Your task to perform on an android device: change the clock style Image 0: 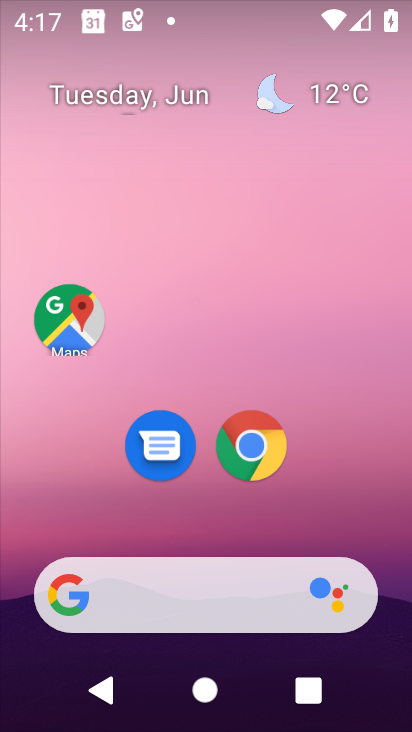
Step 0: drag from (323, 460) to (252, 51)
Your task to perform on an android device: change the clock style Image 1: 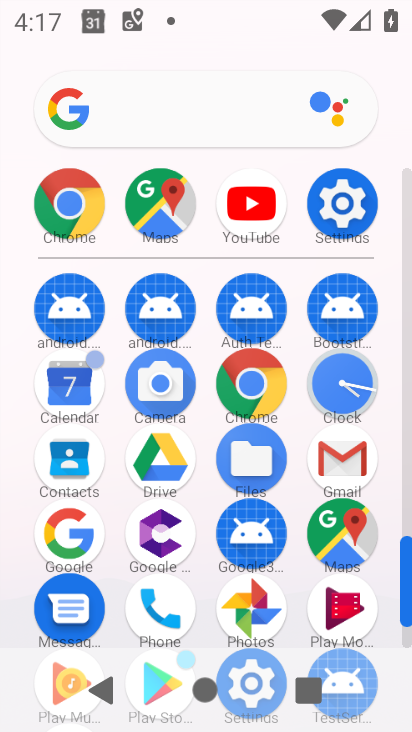
Step 1: click (338, 391)
Your task to perform on an android device: change the clock style Image 2: 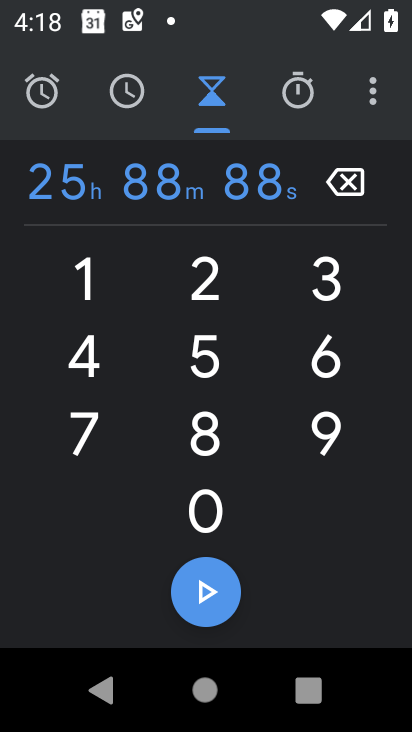
Step 2: click (350, 94)
Your task to perform on an android device: change the clock style Image 3: 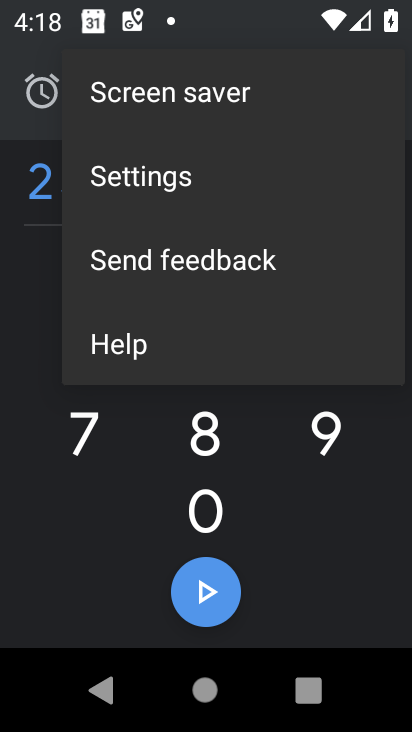
Step 3: click (106, 192)
Your task to perform on an android device: change the clock style Image 4: 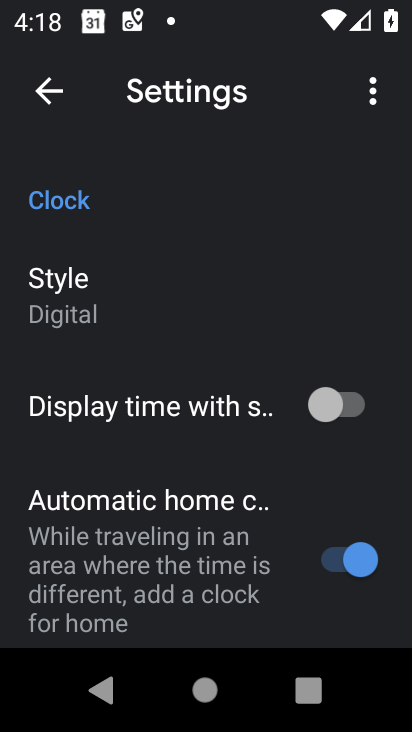
Step 4: click (75, 272)
Your task to perform on an android device: change the clock style Image 5: 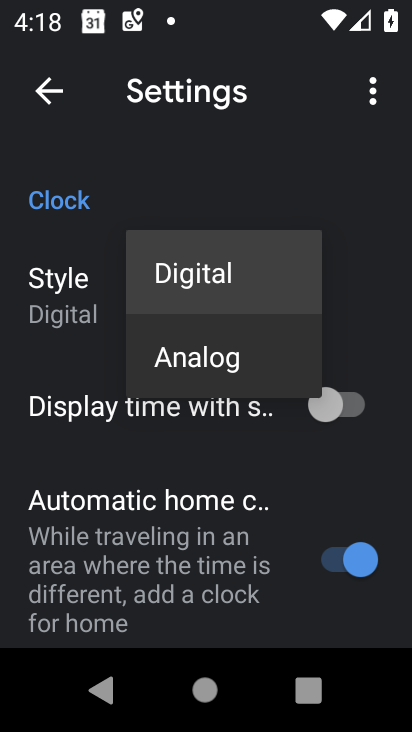
Step 5: click (157, 355)
Your task to perform on an android device: change the clock style Image 6: 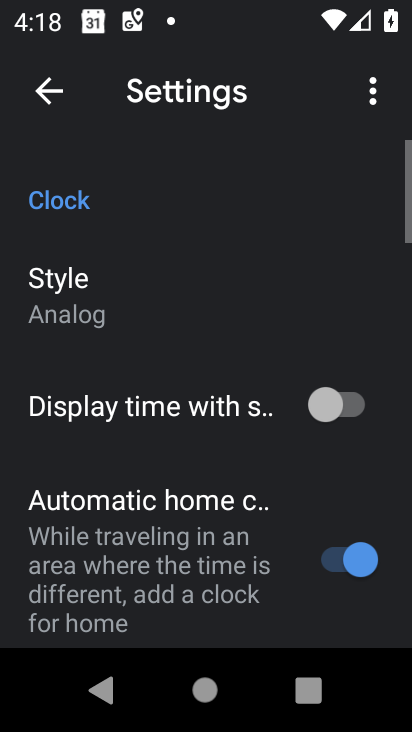
Step 6: task complete